Your task to perform on an android device: toggle translation in the chrome app Image 0: 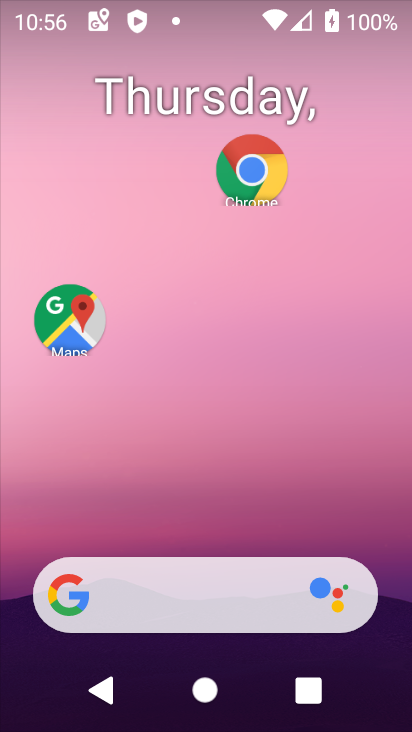
Step 0: drag from (206, 552) to (185, 198)
Your task to perform on an android device: toggle translation in the chrome app Image 1: 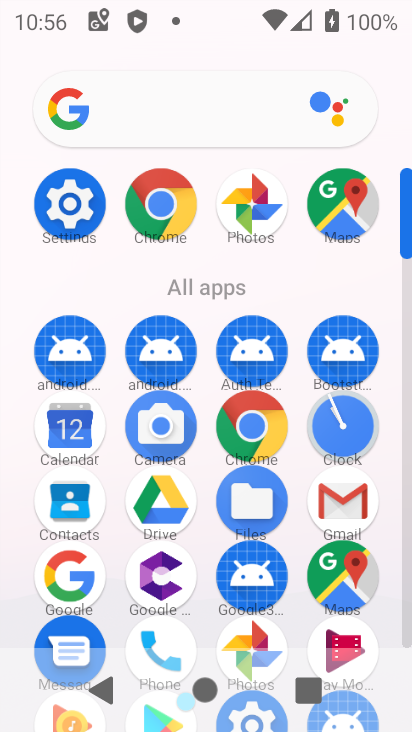
Step 1: click (175, 210)
Your task to perform on an android device: toggle translation in the chrome app Image 2: 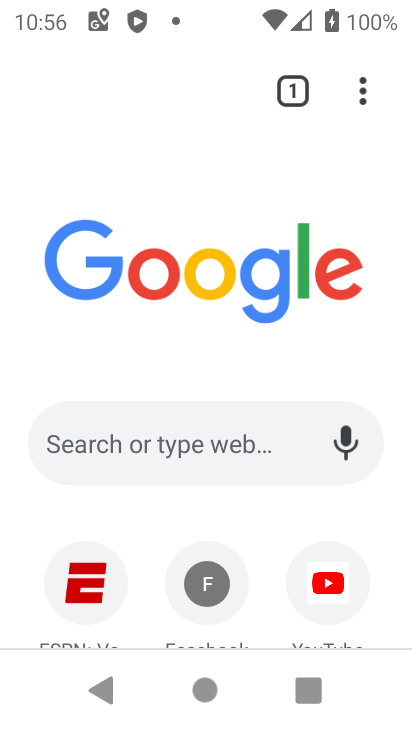
Step 2: click (357, 88)
Your task to perform on an android device: toggle translation in the chrome app Image 3: 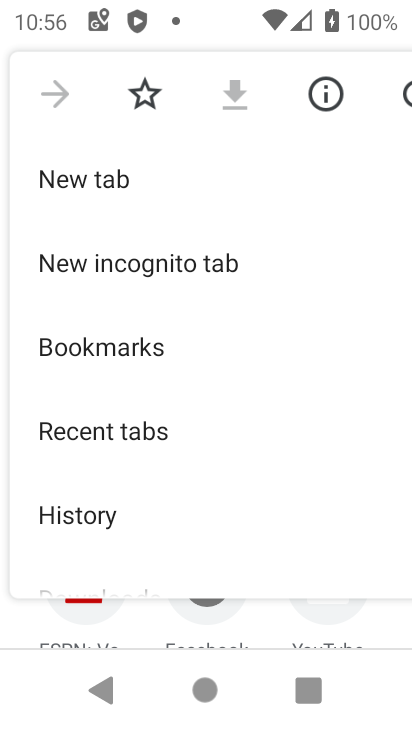
Step 3: drag from (187, 414) to (187, 239)
Your task to perform on an android device: toggle translation in the chrome app Image 4: 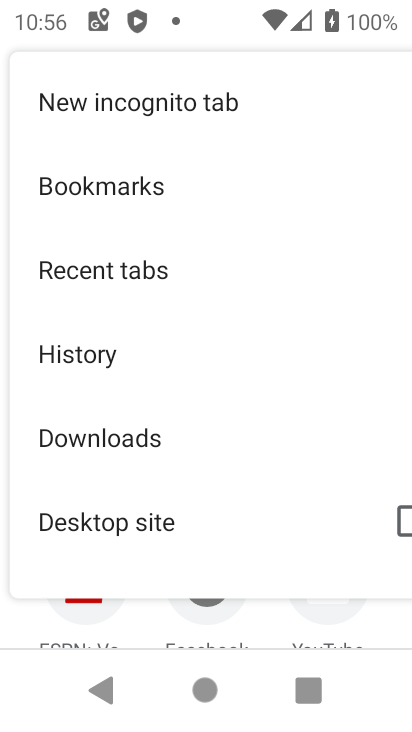
Step 4: drag from (166, 555) to (166, 321)
Your task to perform on an android device: toggle translation in the chrome app Image 5: 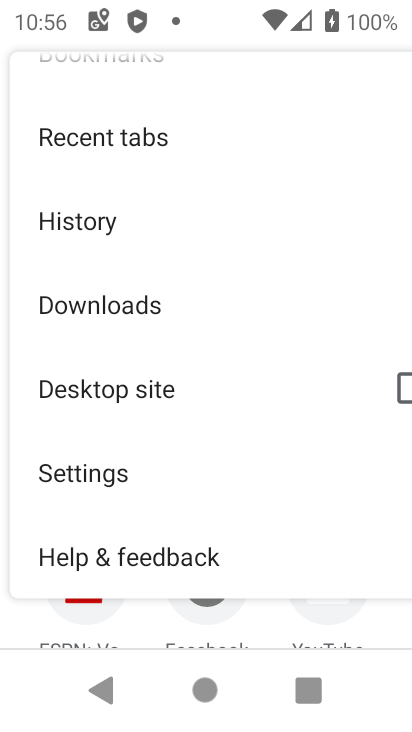
Step 5: click (79, 473)
Your task to perform on an android device: toggle translation in the chrome app Image 6: 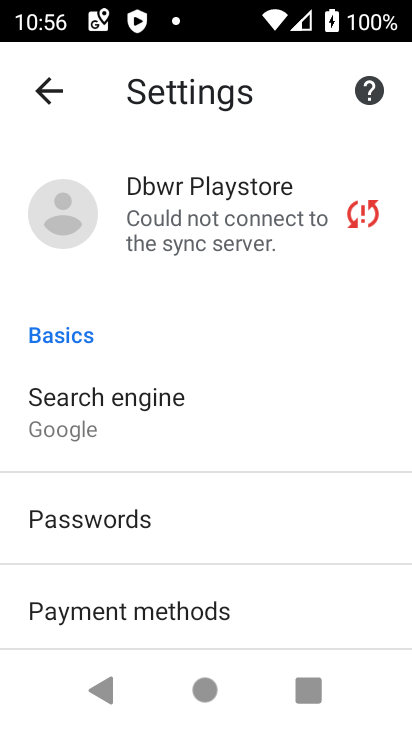
Step 6: drag from (117, 608) to (139, 311)
Your task to perform on an android device: toggle translation in the chrome app Image 7: 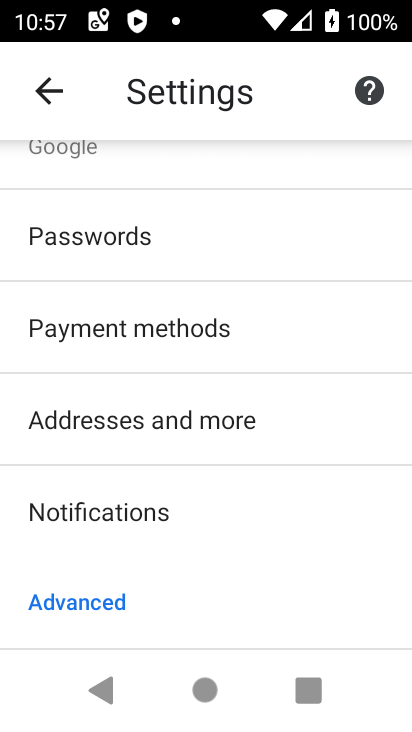
Step 7: drag from (136, 548) to (183, 238)
Your task to perform on an android device: toggle translation in the chrome app Image 8: 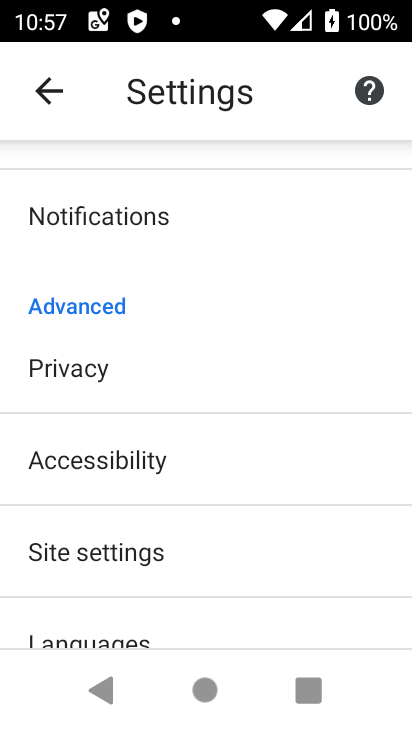
Step 8: drag from (130, 613) to (96, 284)
Your task to perform on an android device: toggle translation in the chrome app Image 9: 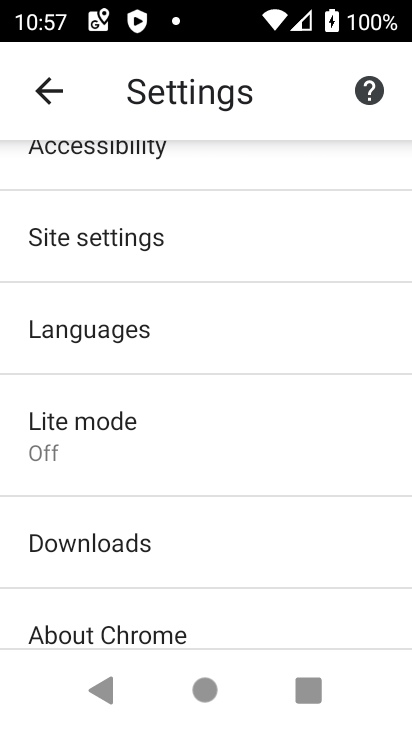
Step 9: click (88, 334)
Your task to perform on an android device: toggle translation in the chrome app Image 10: 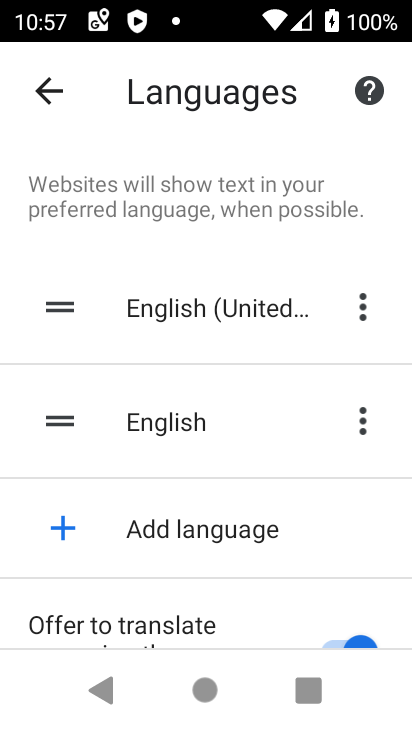
Step 10: click (330, 645)
Your task to perform on an android device: toggle translation in the chrome app Image 11: 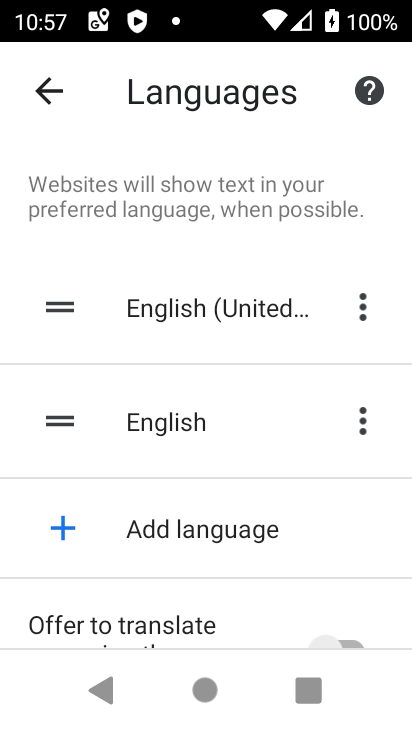
Step 11: task complete